Your task to perform on an android device: turn off priority inbox in the gmail app Image 0: 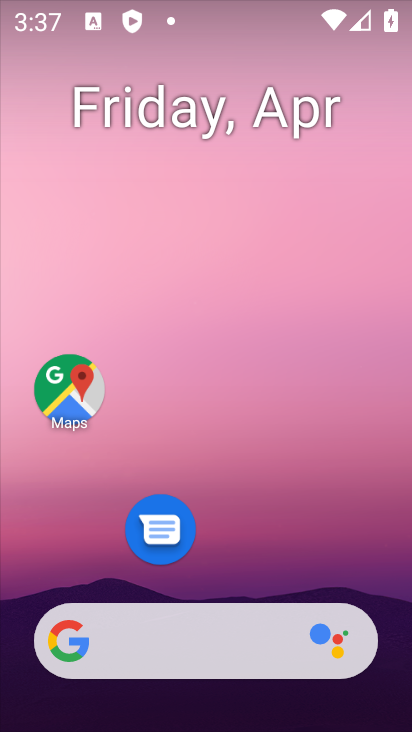
Step 0: click (278, 124)
Your task to perform on an android device: turn off priority inbox in the gmail app Image 1: 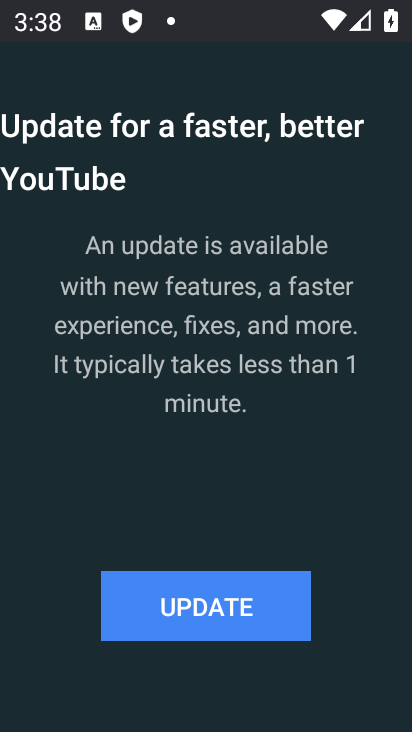
Step 1: task complete